Your task to perform on an android device: empty trash in google photos Image 0: 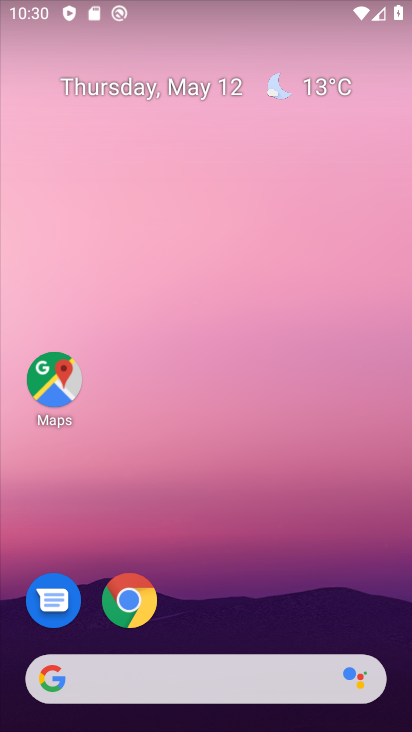
Step 0: drag from (393, 651) to (256, 180)
Your task to perform on an android device: empty trash in google photos Image 1: 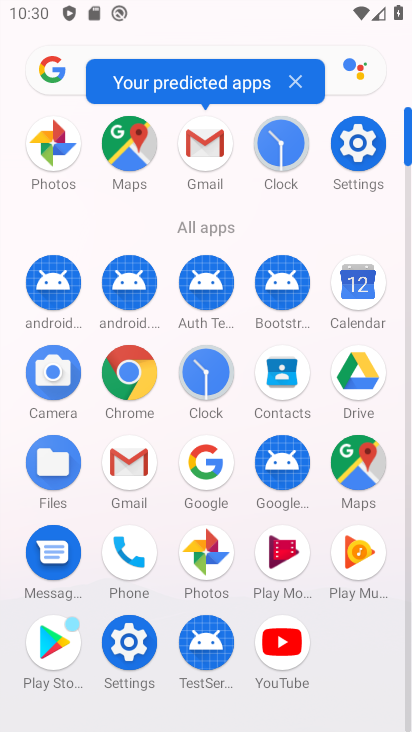
Step 1: click (408, 665)
Your task to perform on an android device: empty trash in google photos Image 2: 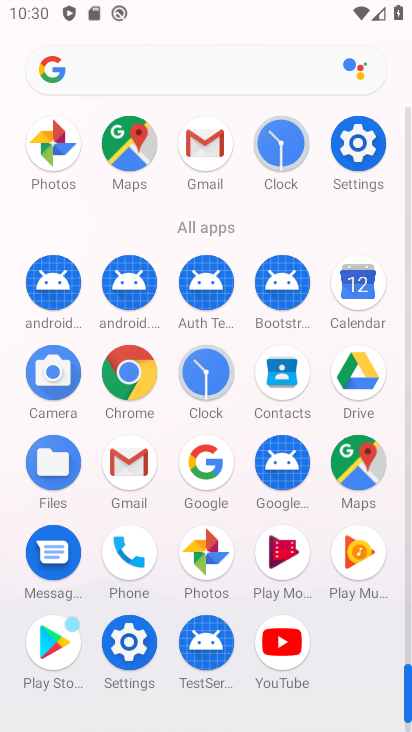
Step 2: click (208, 550)
Your task to perform on an android device: empty trash in google photos Image 3: 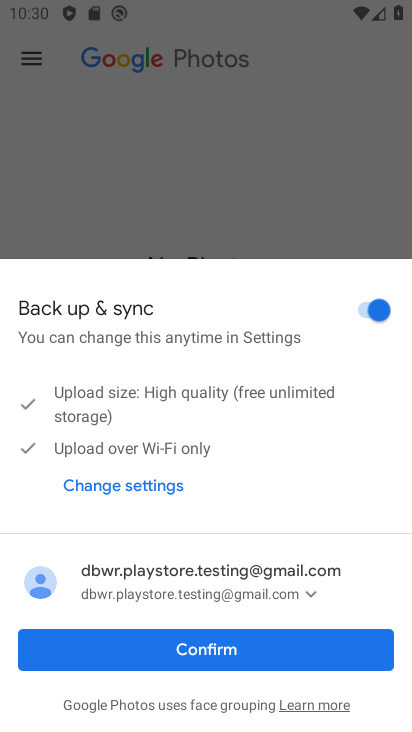
Step 3: click (207, 654)
Your task to perform on an android device: empty trash in google photos Image 4: 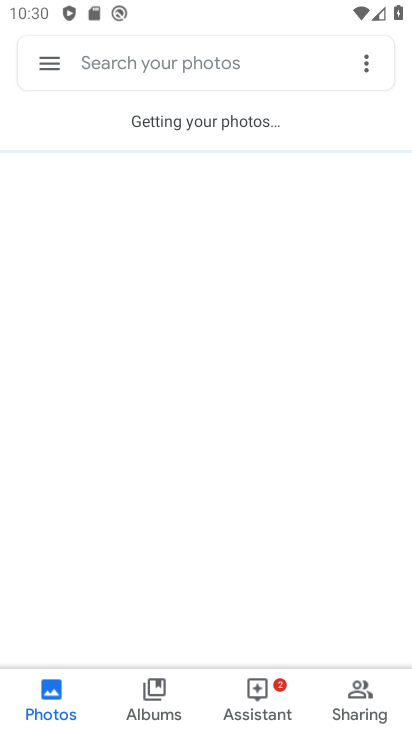
Step 4: click (47, 59)
Your task to perform on an android device: empty trash in google photos Image 5: 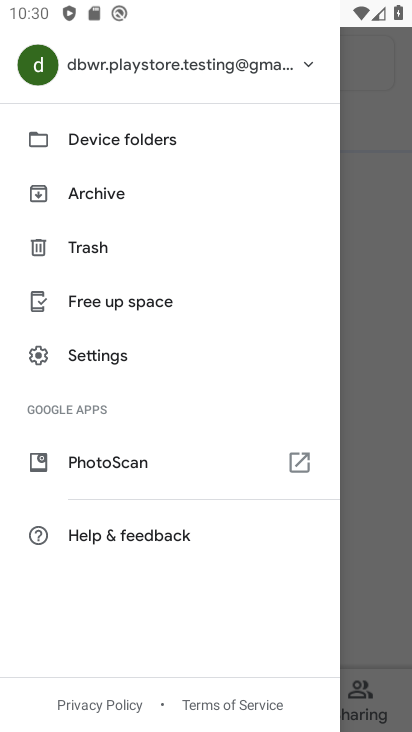
Step 5: click (83, 246)
Your task to perform on an android device: empty trash in google photos Image 6: 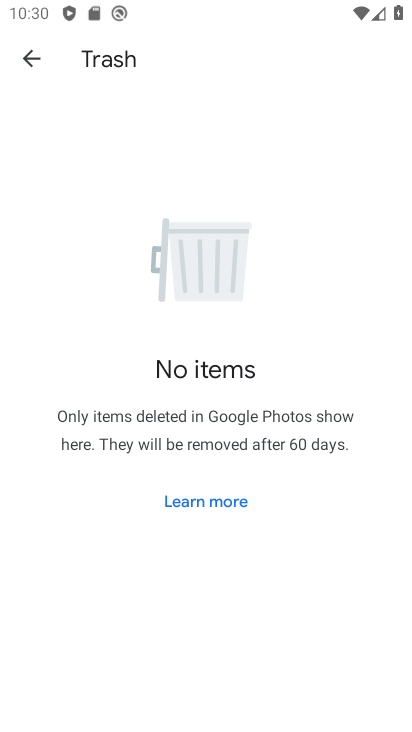
Step 6: task complete